Your task to perform on an android device: make emails show in primary in the gmail app Image 0: 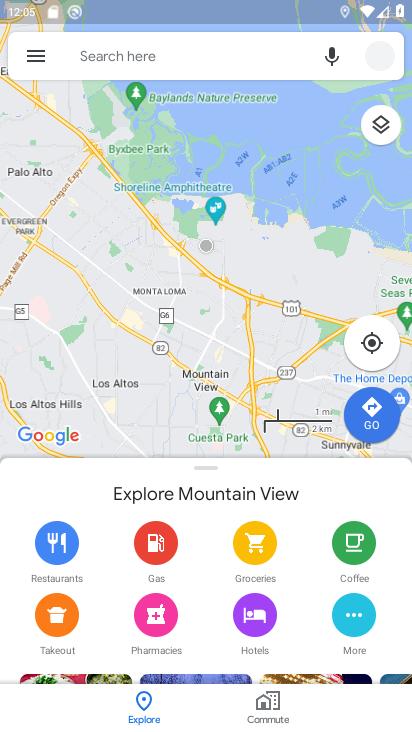
Step 0: press home button
Your task to perform on an android device: make emails show in primary in the gmail app Image 1: 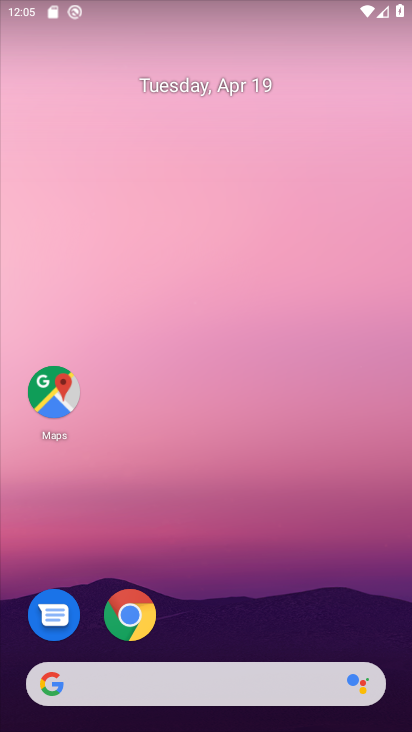
Step 1: drag from (197, 659) to (282, 252)
Your task to perform on an android device: make emails show in primary in the gmail app Image 2: 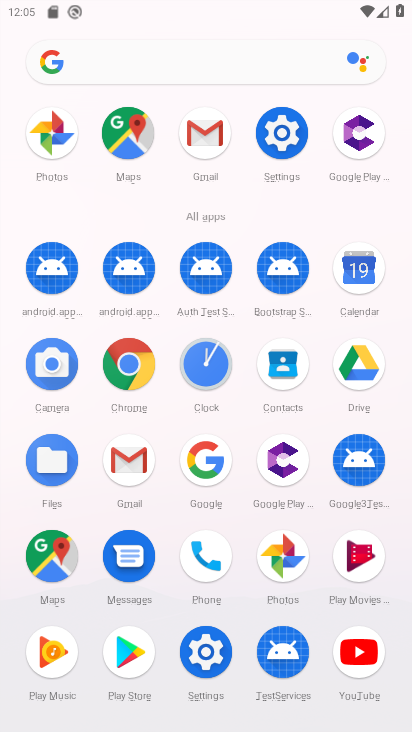
Step 2: click (202, 148)
Your task to perform on an android device: make emails show in primary in the gmail app Image 3: 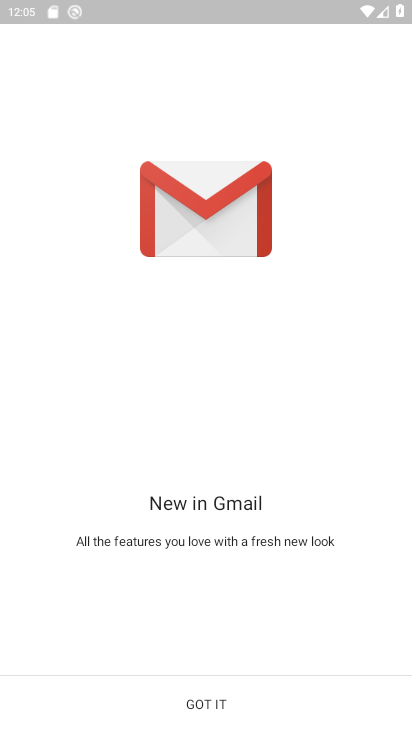
Step 3: click (200, 704)
Your task to perform on an android device: make emails show in primary in the gmail app Image 4: 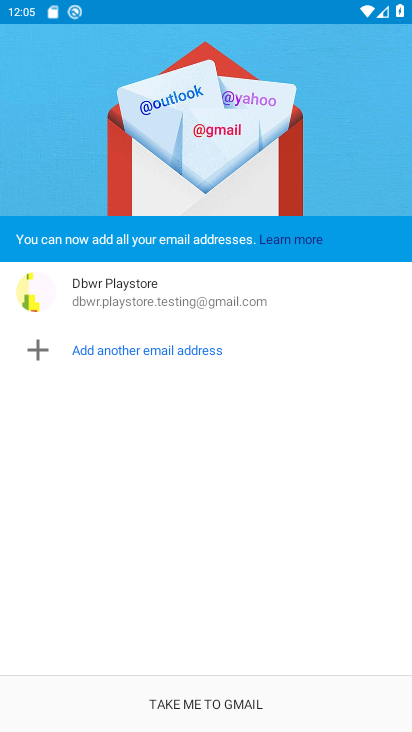
Step 4: click (194, 700)
Your task to perform on an android device: make emails show in primary in the gmail app Image 5: 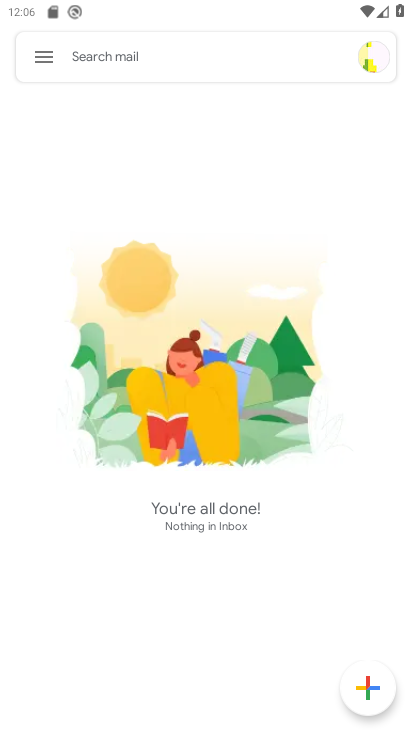
Step 5: click (50, 59)
Your task to perform on an android device: make emails show in primary in the gmail app Image 6: 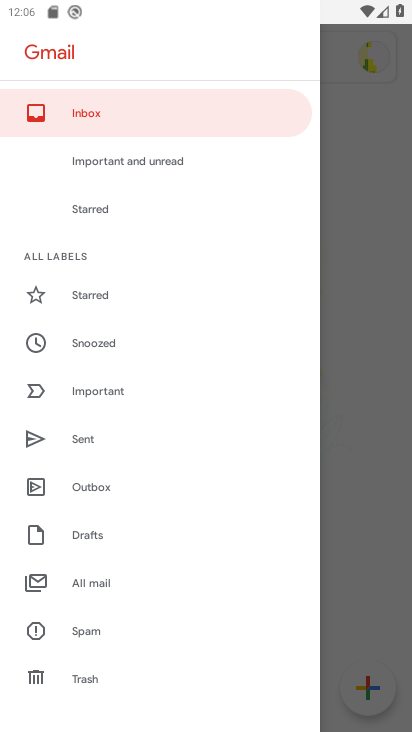
Step 6: drag from (97, 694) to (94, 352)
Your task to perform on an android device: make emails show in primary in the gmail app Image 7: 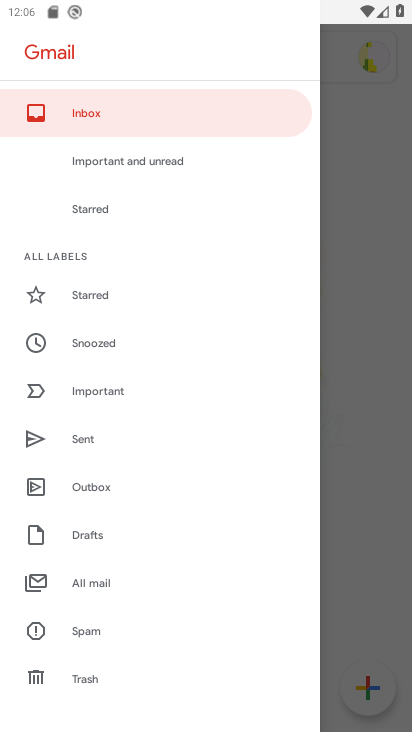
Step 7: drag from (114, 613) to (124, 318)
Your task to perform on an android device: make emails show in primary in the gmail app Image 8: 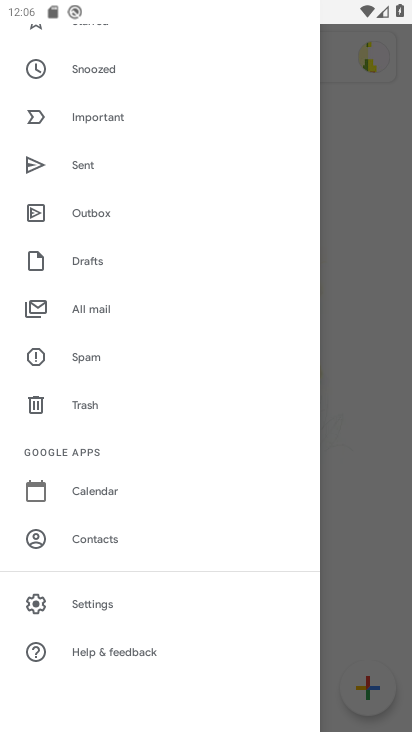
Step 8: click (95, 606)
Your task to perform on an android device: make emails show in primary in the gmail app Image 9: 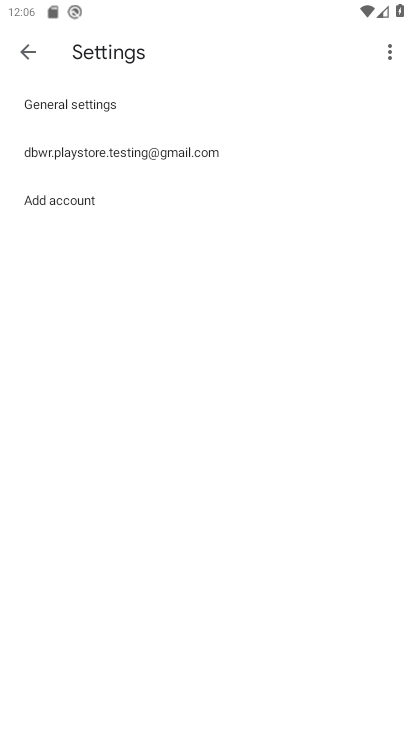
Step 9: click (92, 150)
Your task to perform on an android device: make emails show in primary in the gmail app Image 10: 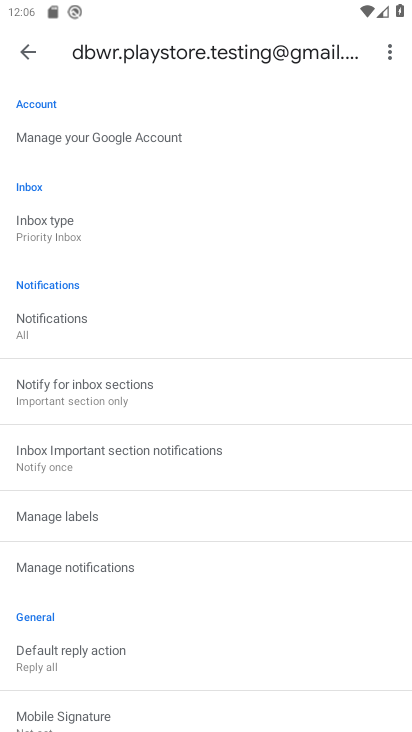
Step 10: click (35, 228)
Your task to perform on an android device: make emails show in primary in the gmail app Image 11: 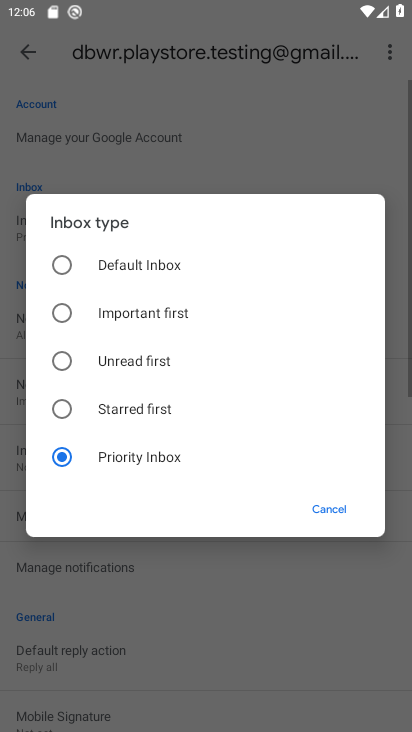
Step 11: click (66, 265)
Your task to perform on an android device: make emails show in primary in the gmail app Image 12: 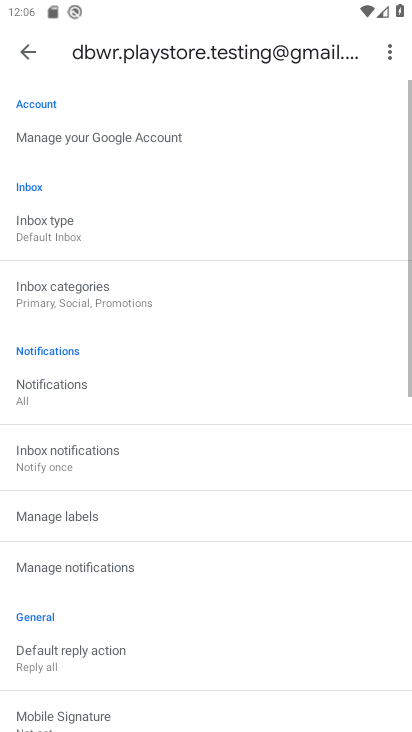
Step 12: click (121, 308)
Your task to perform on an android device: make emails show in primary in the gmail app Image 13: 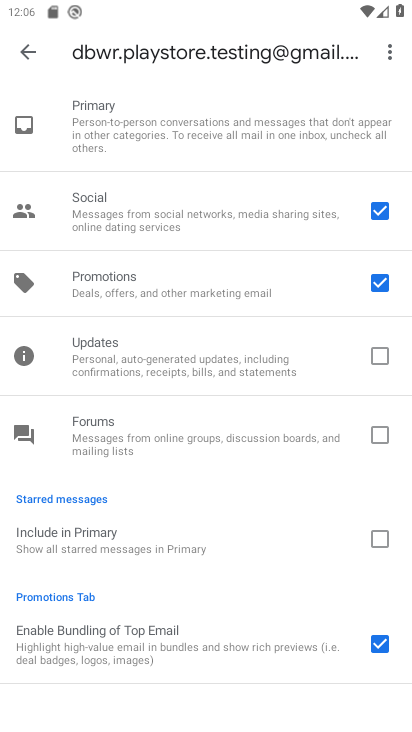
Step 13: click (381, 278)
Your task to perform on an android device: make emails show in primary in the gmail app Image 14: 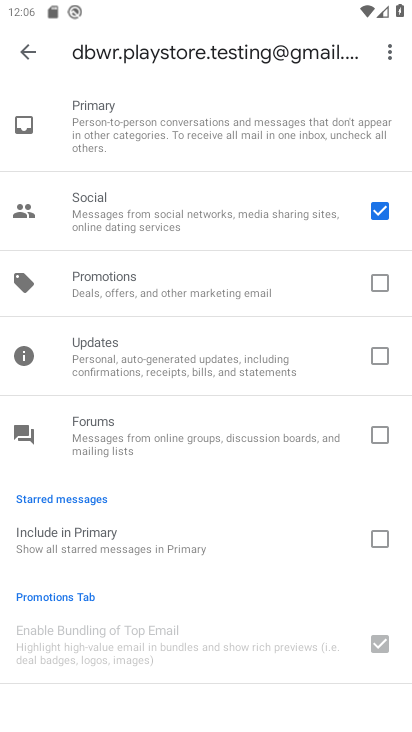
Step 14: click (379, 202)
Your task to perform on an android device: make emails show in primary in the gmail app Image 15: 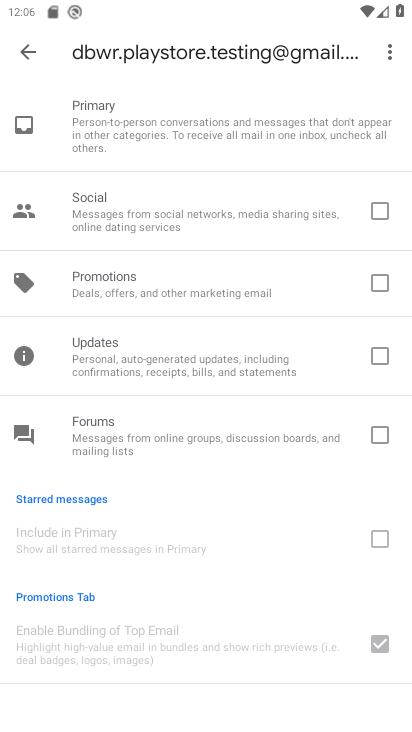
Step 15: click (34, 56)
Your task to perform on an android device: make emails show in primary in the gmail app Image 16: 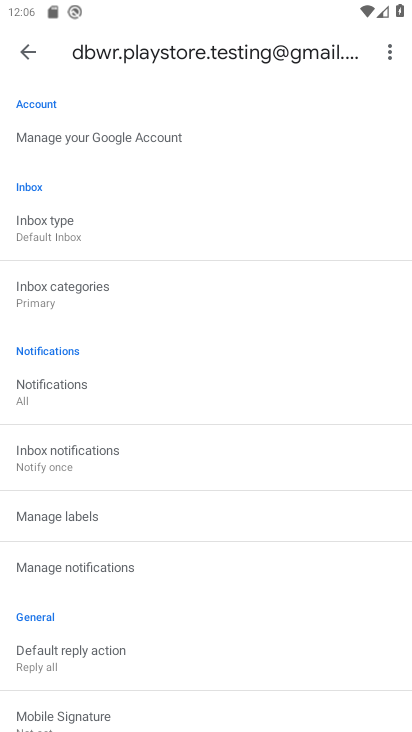
Step 16: task complete